Your task to perform on an android device: add a contact Image 0: 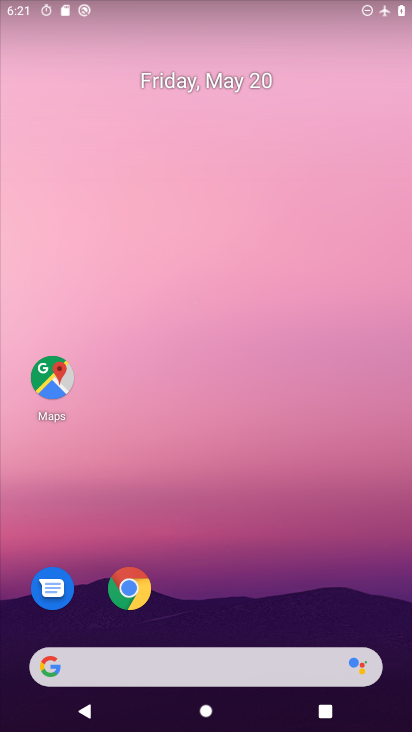
Step 0: drag from (203, 617) to (208, 128)
Your task to perform on an android device: add a contact Image 1: 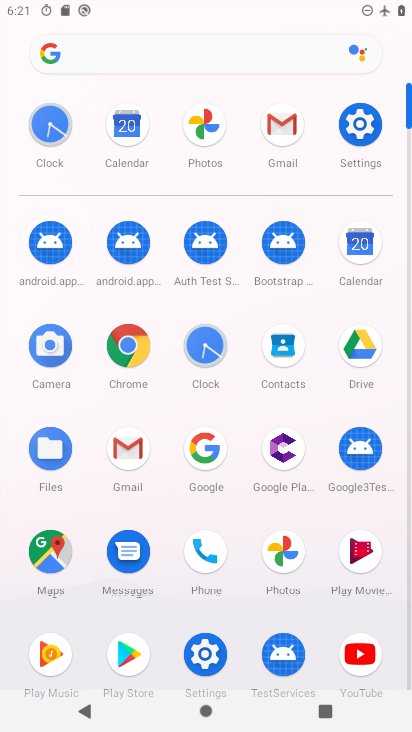
Step 1: click (286, 361)
Your task to perform on an android device: add a contact Image 2: 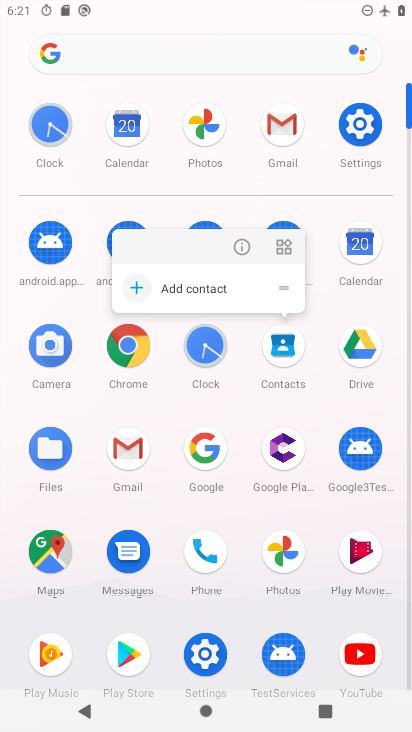
Step 2: click (280, 350)
Your task to perform on an android device: add a contact Image 3: 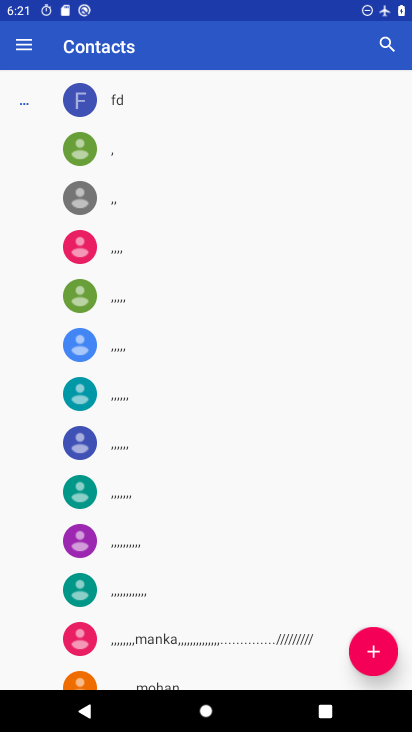
Step 3: click (371, 639)
Your task to perform on an android device: add a contact Image 4: 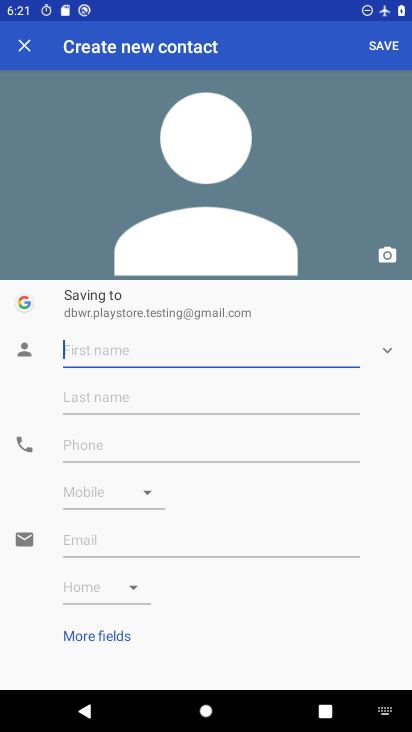
Step 4: click (216, 341)
Your task to perform on an android device: add a contact Image 5: 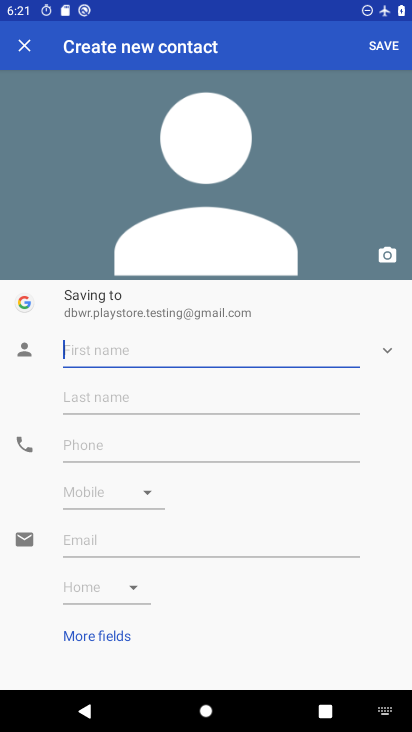
Step 5: type "Roman"
Your task to perform on an android device: add a contact Image 6: 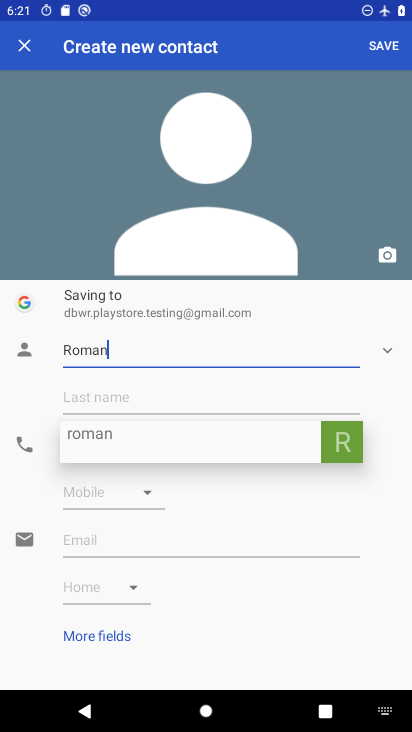
Step 6: click (200, 454)
Your task to perform on an android device: add a contact Image 7: 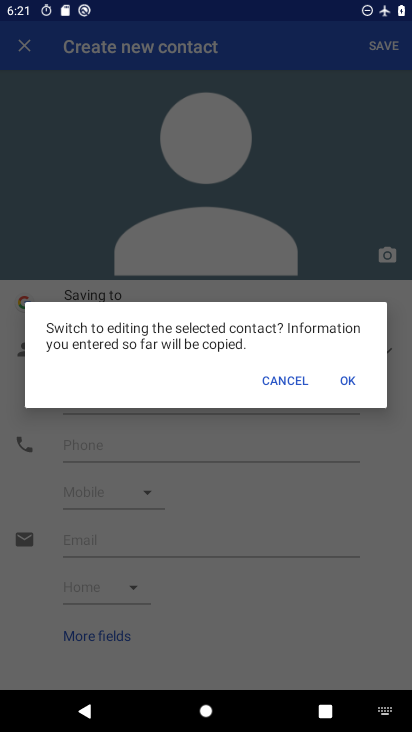
Step 7: click (266, 381)
Your task to perform on an android device: add a contact Image 8: 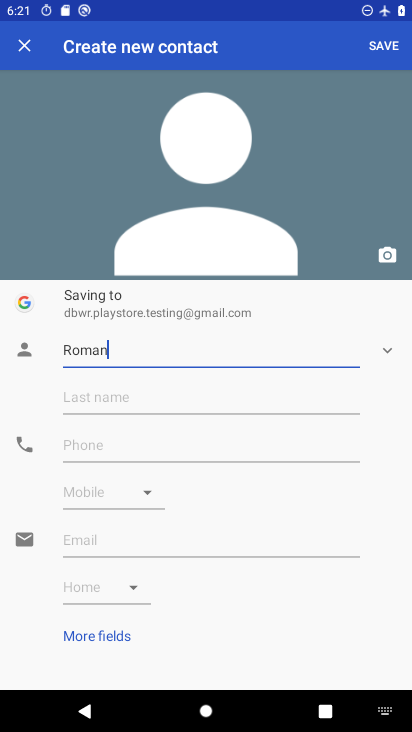
Step 8: click (194, 447)
Your task to perform on an android device: add a contact Image 9: 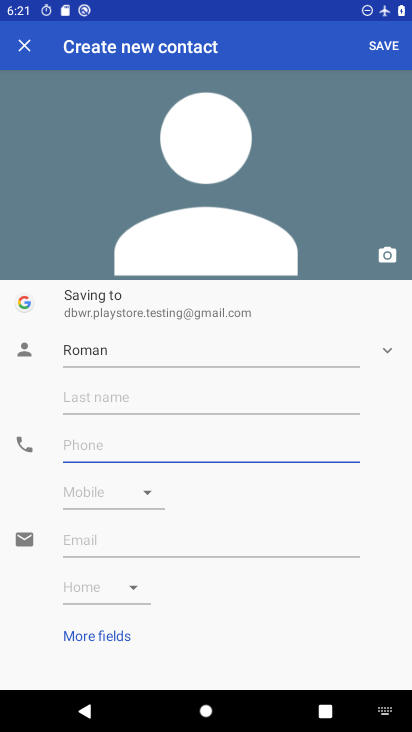
Step 9: type "6565656565"
Your task to perform on an android device: add a contact Image 10: 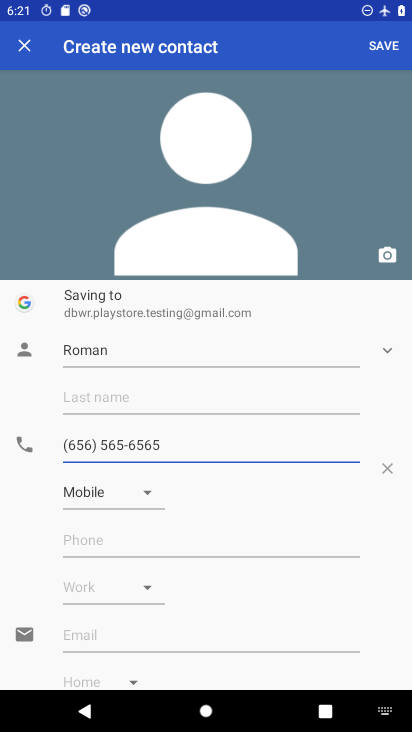
Step 10: click (378, 46)
Your task to perform on an android device: add a contact Image 11: 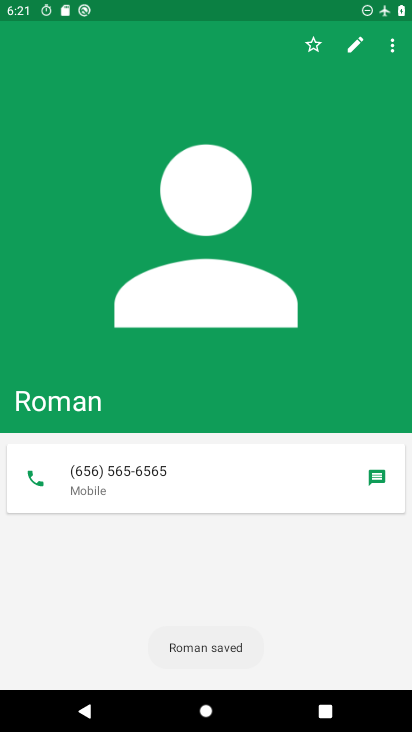
Step 11: task complete